Your task to perform on an android device: Show me recent news Image 0: 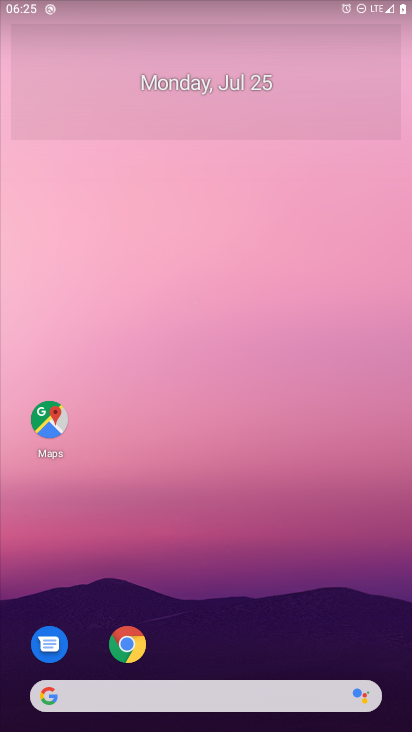
Step 0: click (43, 706)
Your task to perform on an android device: Show me recent news Image 1: 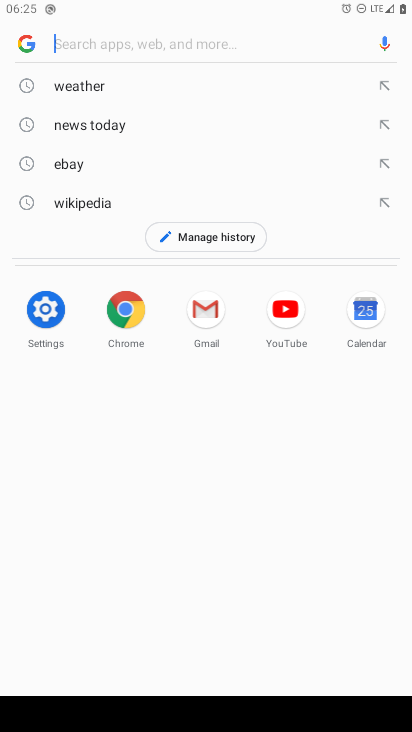
Step 1: type "recent news"
Your task to perform on an android device: Show me recent news Image 2: 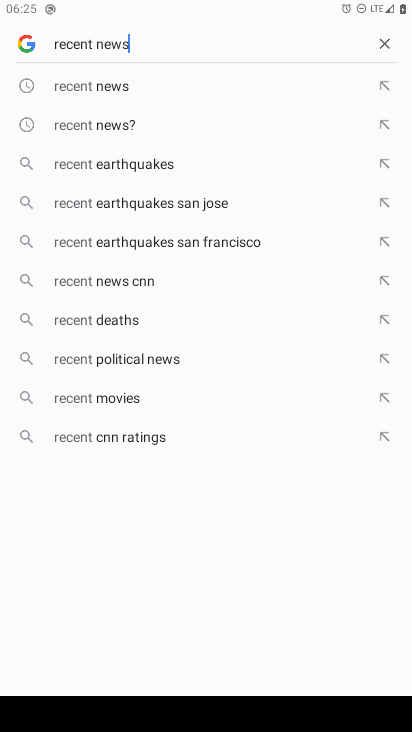
Step 2: press enter
Your task to perform on an android device: Show me recent news Image 3: 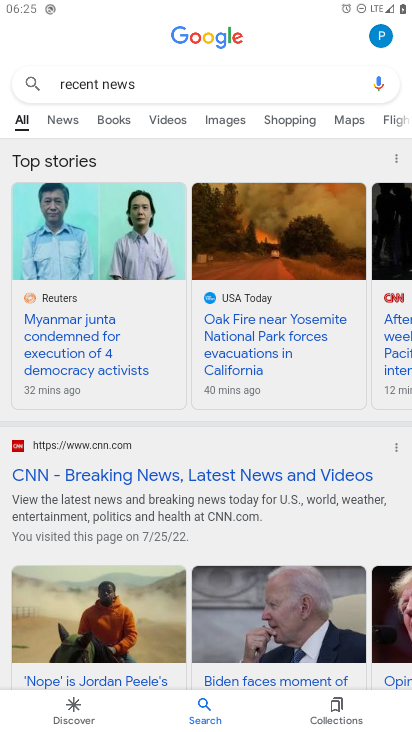
Step 3: task complete